Your task to perform on an android device: toggle location history Image 0: 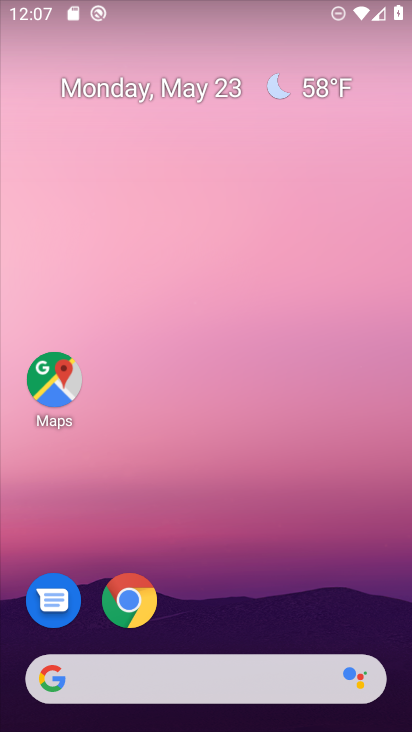
Step 0: drag from (296, 498) to (330, 121)
Your task to perform on an android device: toggle location history Image 1: 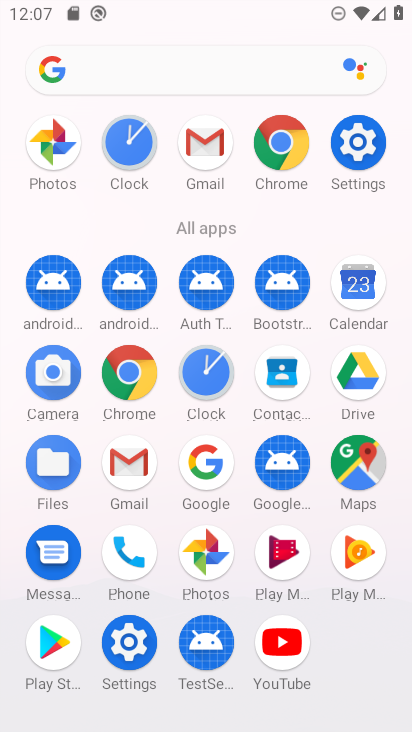
Step 1: click (370, 148)
Your task to perform on an android device: toggle location history Image 2: 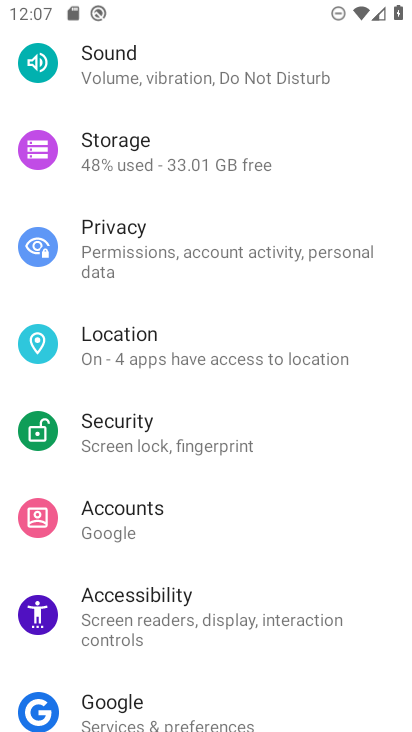
Step 2: click (147, 355)
Your task to perform on an android device: toggle location history Image 3: 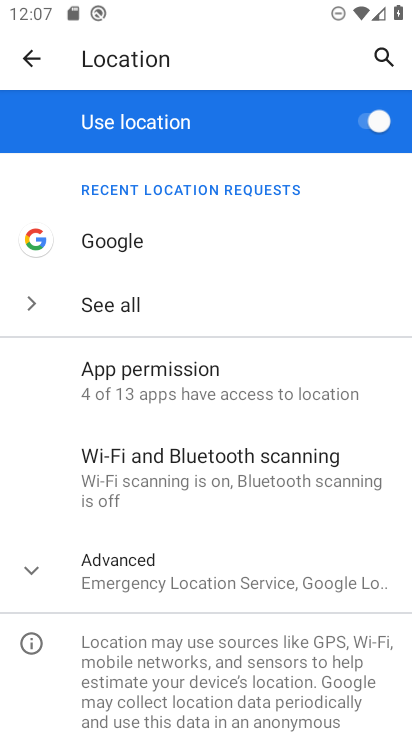
Step 3: drag from (179, 535) to (247, 261)
Your task to perform on an android device: toggle location history Image 4: 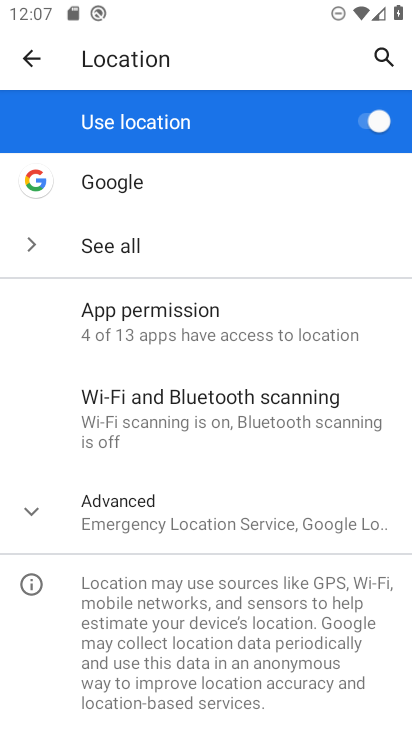
Step 4: click (198, 537)
Your task to perform on an android device: toggle location history Image 5: 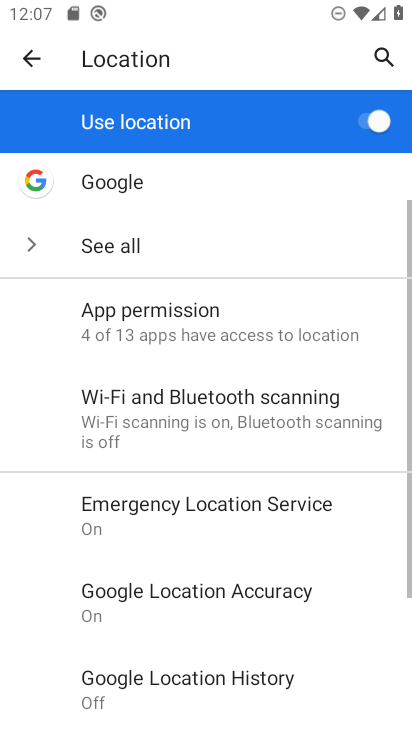
Step 5: drag from (198, 537) to (221, 252)
Your task to perform on an android device: toggle location history Image 6: 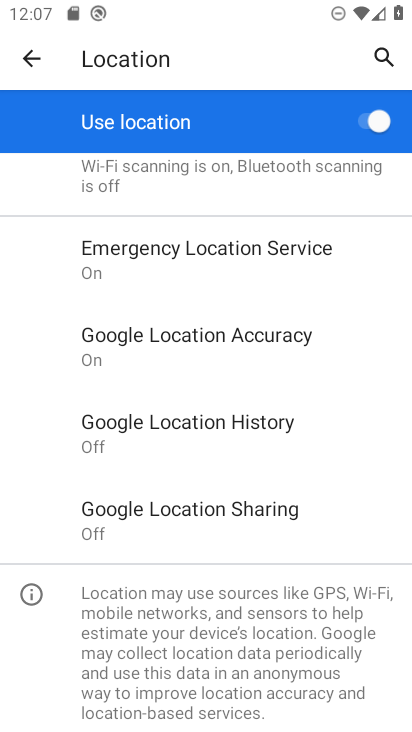
Step 6: click (204, 430)
Your task to perform on an android device: toggle location history Image 7: 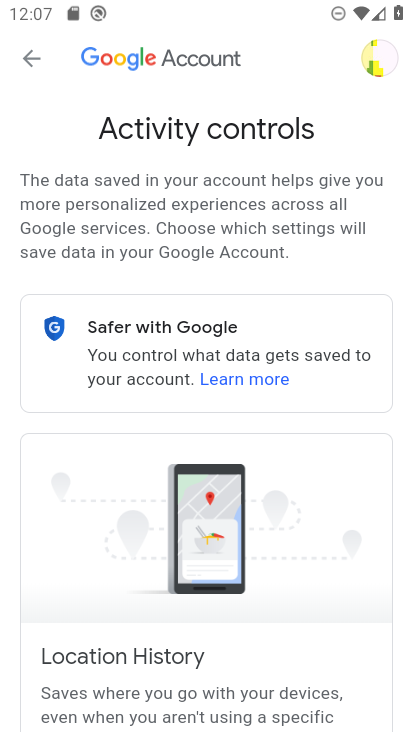
Step 7: drag from (262, 596) to (216, 204)
Your task to perform on an android device: toggle location history Image 8: 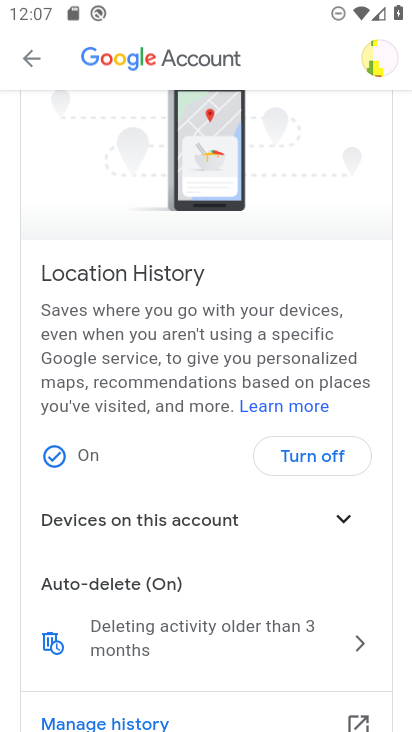
Step 8: drag from (274, 583) to (255, 194)
Your task to perform on an android device: toggle location history Image 9: 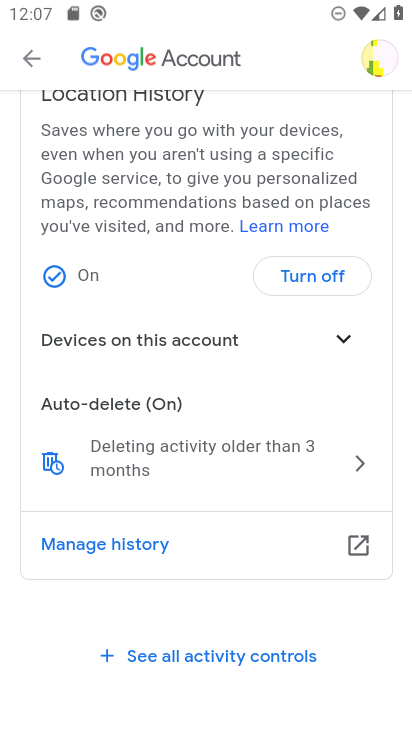
Step 9: click (311, 280)
Your task to perform on an android device: toggle location history Image 10: 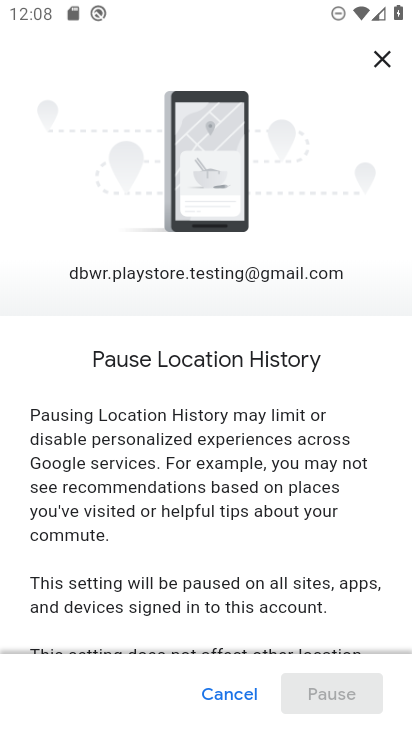
Step 10: drag from (311, 545) to (279, 200)
Your task to perform on an android device: toggle location history Image 11: 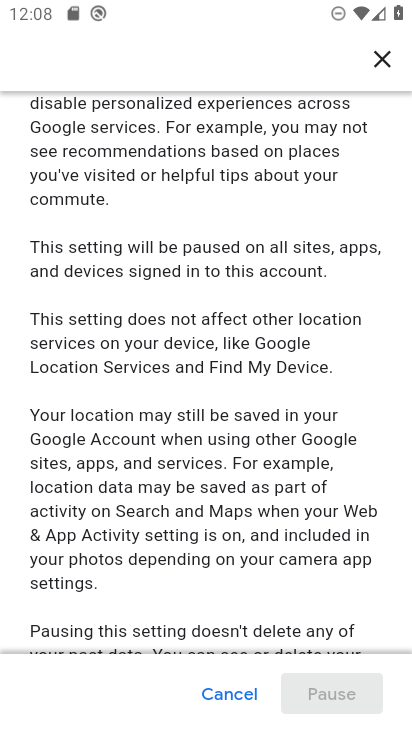
Step 11: drag from (312, 599) to (290, 249)
Your task to perform on an android device: toggle location history Image 12: 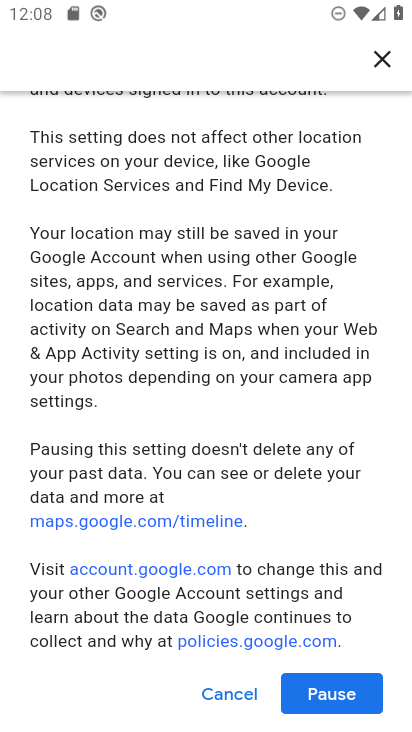
Step 12: click (337, 704)
Your task to perform on an android device: toggle location history Image 13: 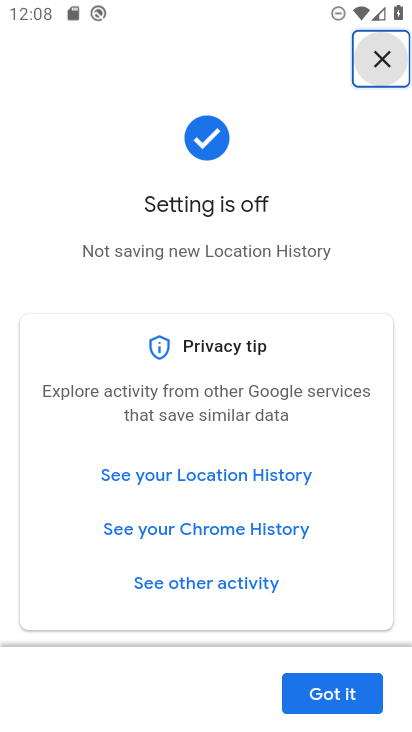
Step 13: task complete